Your task to perform on an android device: Open display settings Image 0: 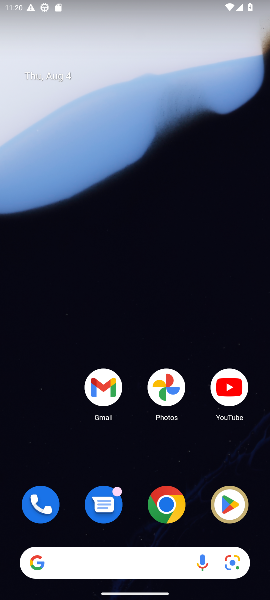
Step 0: drag from (158, 460) to (158, 40)
Your task to perform on an android device: Open display settings Image 1: 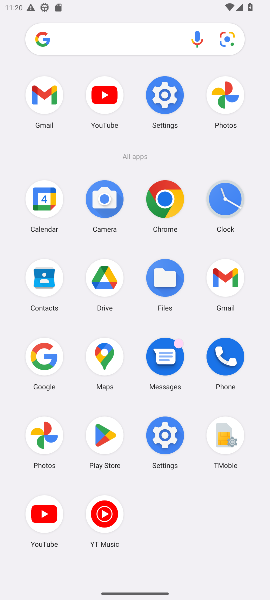
Step 1: click (165, 431)
Your task to perform on an android device: Open display settings Image 2: 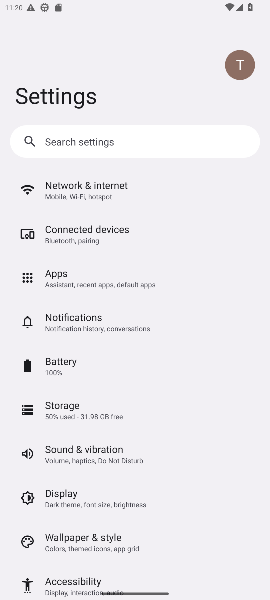
Step 2: click (114, 501)
Your task to perform on an android device: Open display settings Image 3: 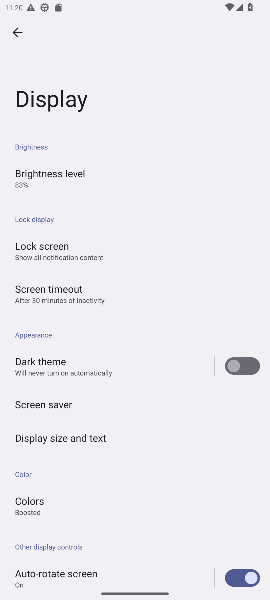
Step 3: task complete